Your task to perform on an android device: turn on wifi Image 0: 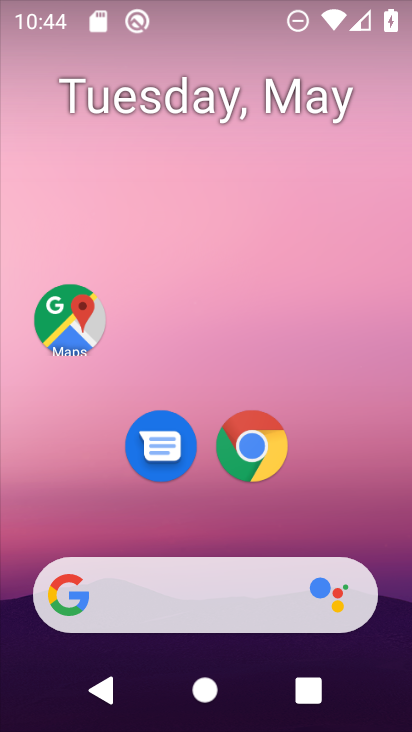
Step 0: drag from (233, 532) to (308, 0)
Your task to perform on an android device: turn on wifi Image 1: 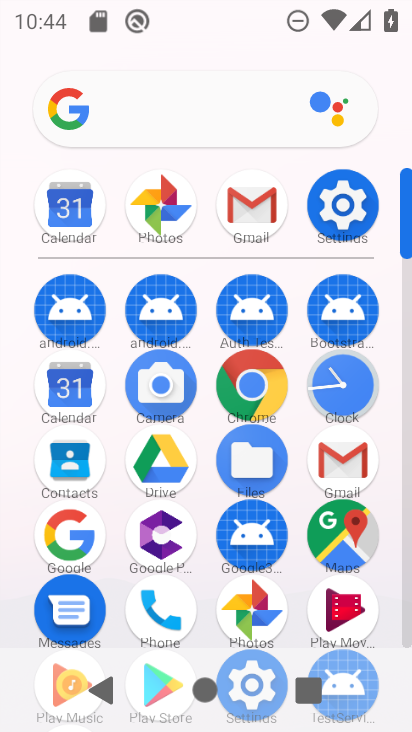
Step 1: click (332, 215)
Your task to perform on an android device: turn on wifi Image 2: 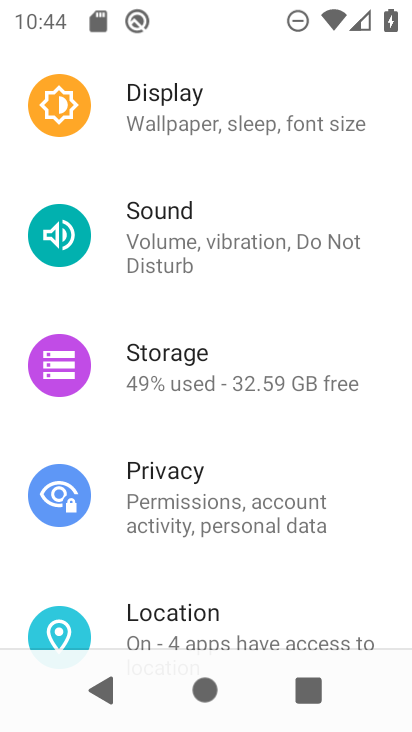
Step 2: drag from (247, 170) to (219, 330)
Your task to perform on an android device: turn on wifi Image 3: 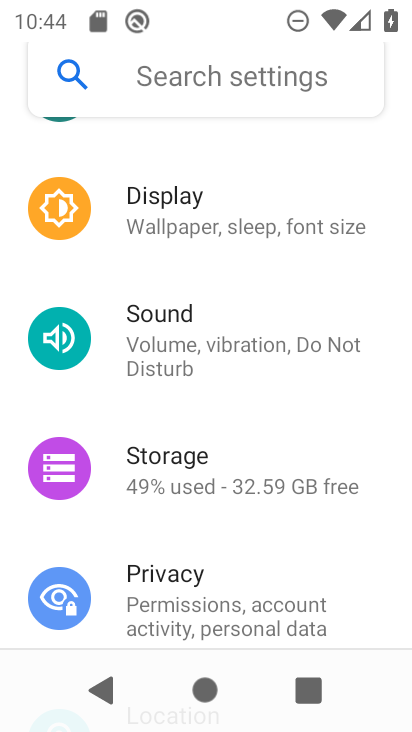
Step 3: drag from (218, 177) to (214, 430)
Your task to perform on an android device: turn on wifi Image 4: 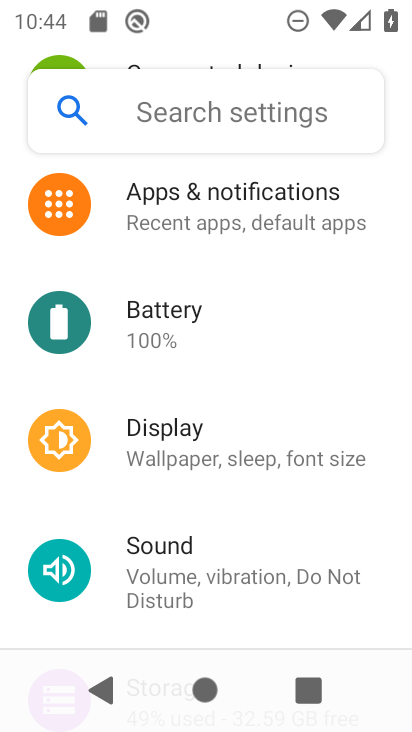
Step 4: drag from (253, 271) to (228, 721)
Your task to perform on an android device: turn on wifi Image 5: 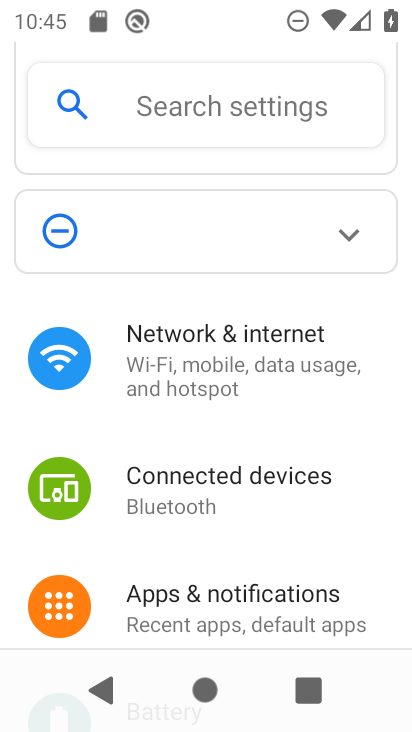
Step 5: click (231, 359)
Your task to perform on an android device: turn on wifi Image 6: 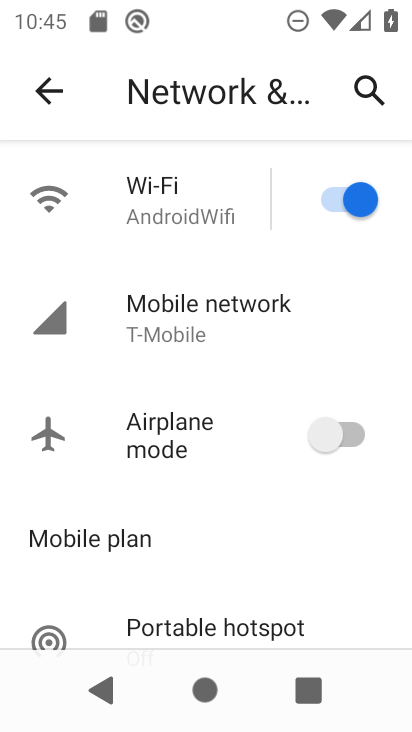
Step 6: task complete